Your task to perform on an android device: Open the Play Movies app and select the watchlist tab. Image 0: 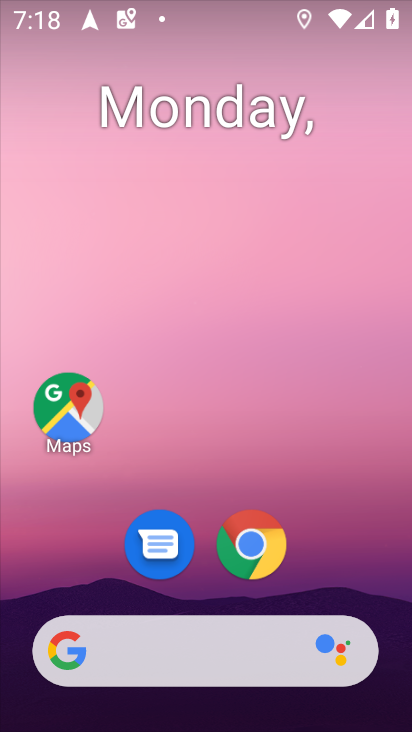
Step 0: drag from (334, 537) to (261, 24)
Your task to perform on an android device: Open the Play Movies app and select the watchlist tab. Image 1: 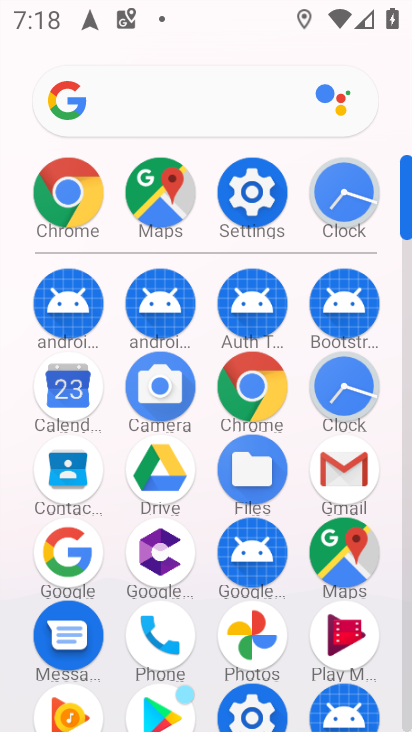
Step 1: click (354, 637)
Your task to perform on an android device: Open the Play Movies app and select the watchlist tab. Image 2: 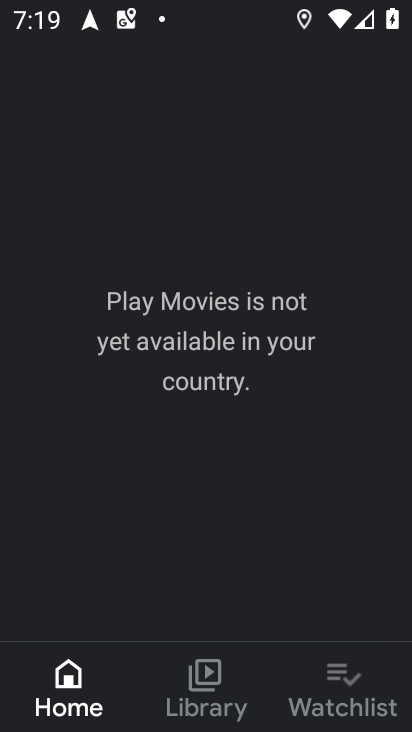
Step 2: click (324, 676)
Your task to perform on an android device: Open the Play Movies app and select the watchlist tab. Image 3: 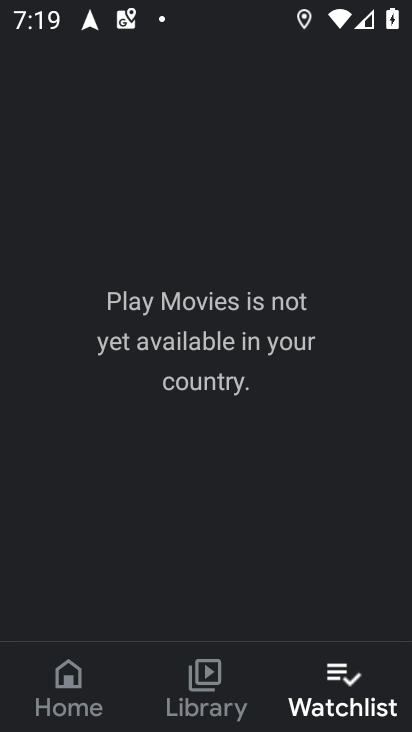
Step 3: task complete